Your task to perform on an android device: Open Youtube and go to the subscriptions tab Image 0: 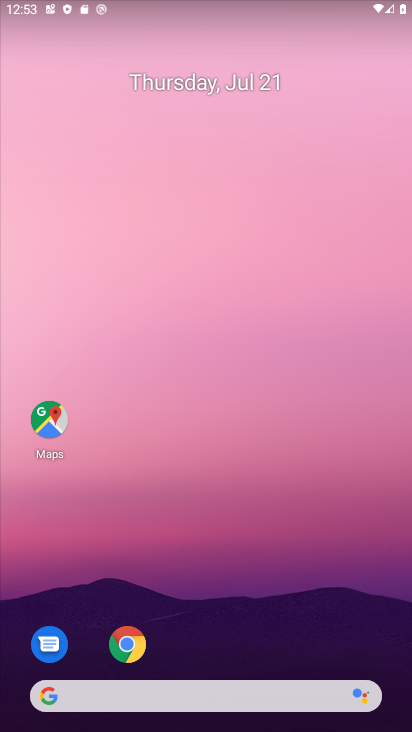
Step 0: drag from (247, 652) to (158, 3)
Your task to perform on an android device: Open Youtube and go to the subscriptions tab Image 1: 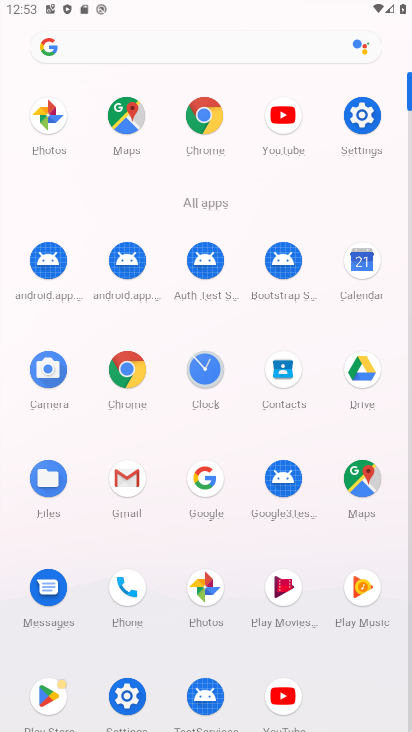
Step 1: click (286, 700)
Your task to perform on an android device: Open Youtube and go to the subscriptions tab Image 2: 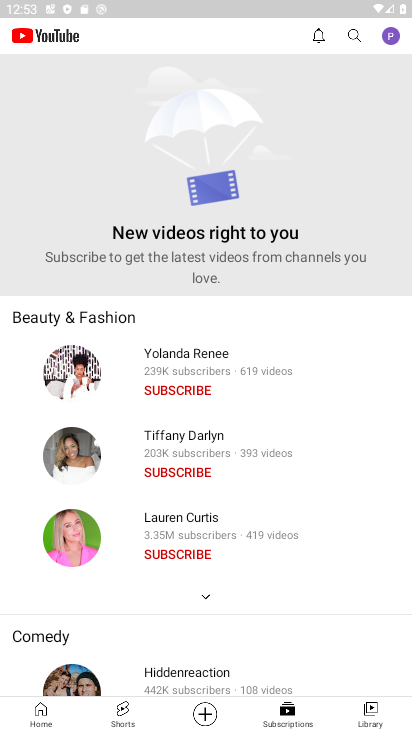
Step 2: task complete